Your task to perform on an android device: Open the calendar app, open the side menu, and click the "Day" option Image 0: 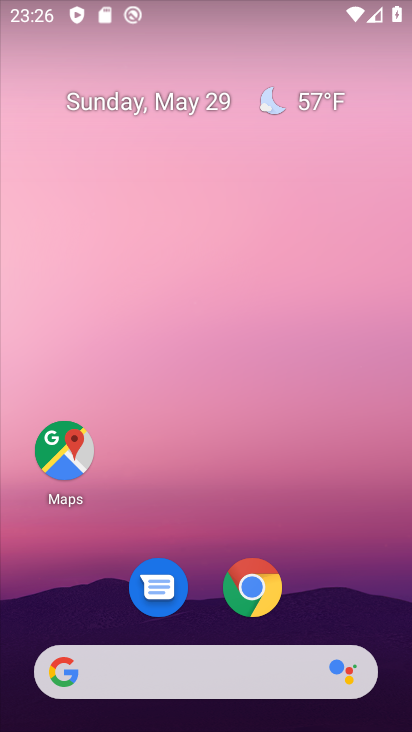
Step 0: drag from (376, 591) to (352, 41)
Your task to perform on an android device: Open the calendar app, open the side menu, and click the "Day" option Image 1: 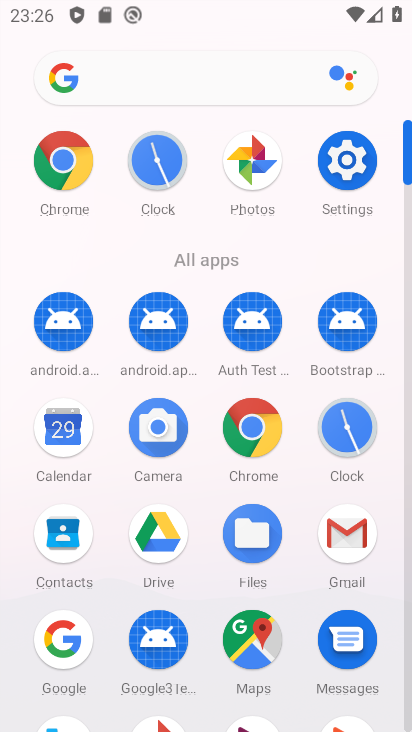
Step 1: click (58, 451)
Your task to perform on an android device: Open the calendar app, open the side menu, and click the "Day" option Image 2: 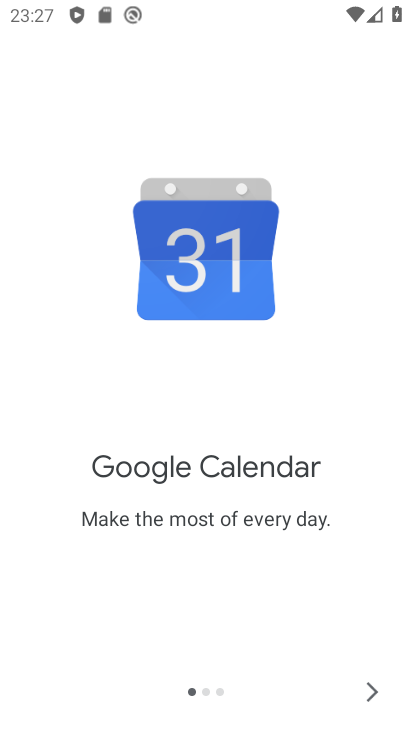
Step 2: click (366, 696)
Your task to perform on an android device: Open the calendar app, open the side menu, and click the "Day" option Image 3: 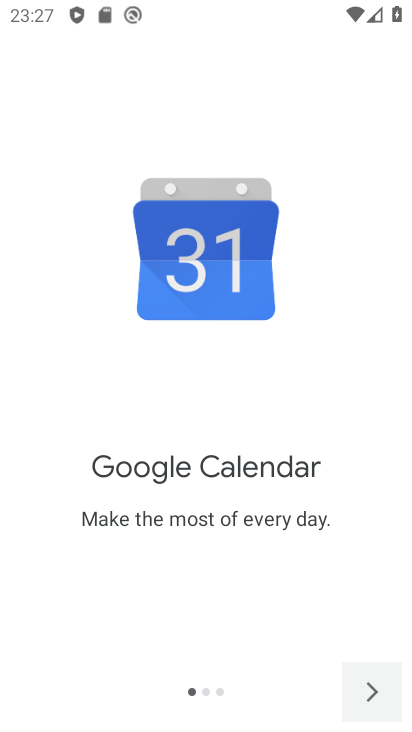
Step 3: click (366, 696)
Your task to perform on an android device: Open the calendar app, open the side menu, and click the "Day" option Image 4: 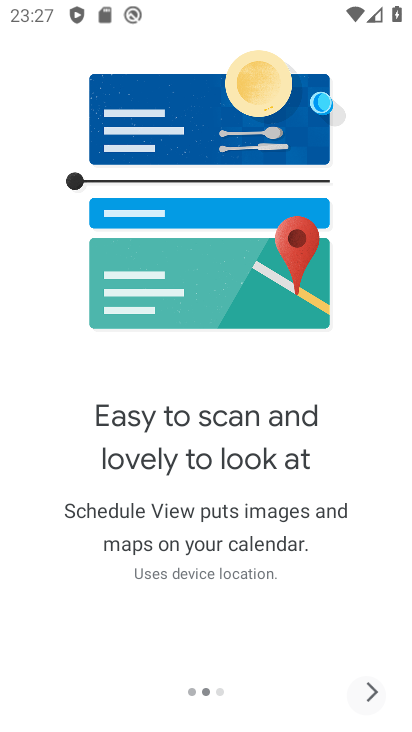
Step 4: click (366, 696)
Your task to perform on an android device: Open the calendar app, open the side menu, and click the "Day" option Image 5: 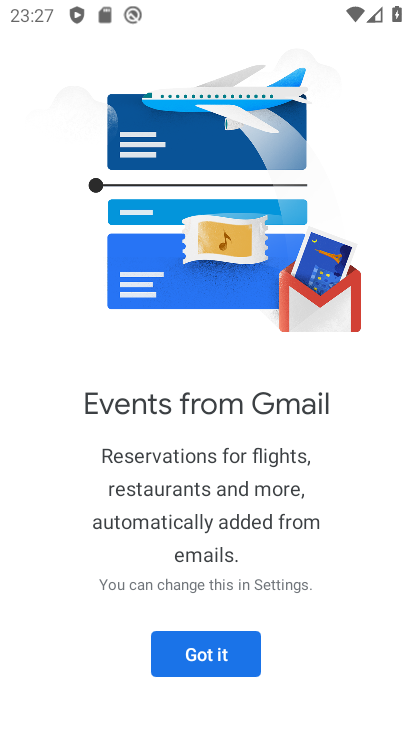
Step 5: click (221, 658)
Your task to perform on an android device: Open the calendar app, open the side menu, and click the "Day" option Image 6: 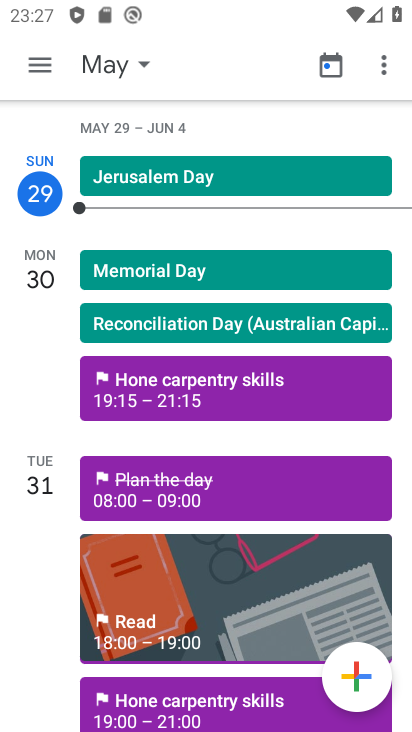
Step 6: click (43, 81)
Your task to perform on an android device: Open the calendar app, open the side menu, and click the "Day" option Image 7: 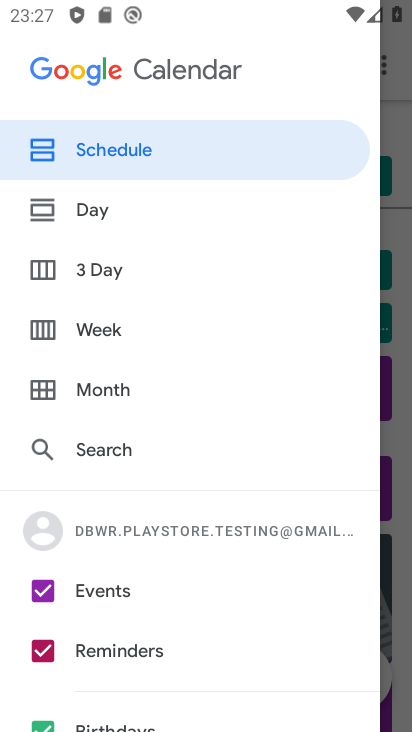
Step 7: click (114, 217)
Your task to perform on an android device: Open the calendar app, open the side menu, and click the "Day" option Image 8: 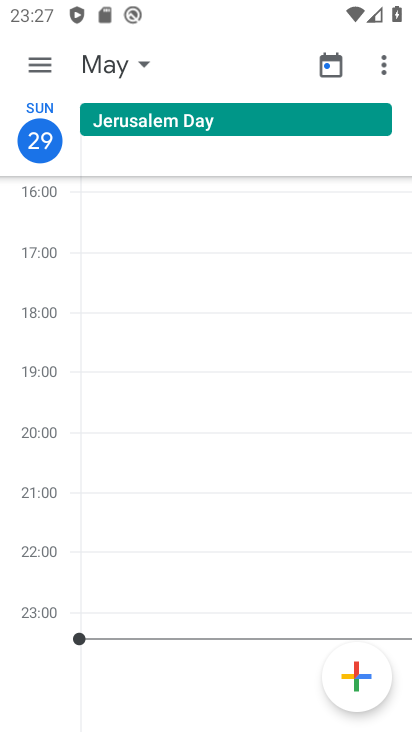
Step 8: task complete